Your task to perform on an android device: turn pop-ups on in chrome Image 0: 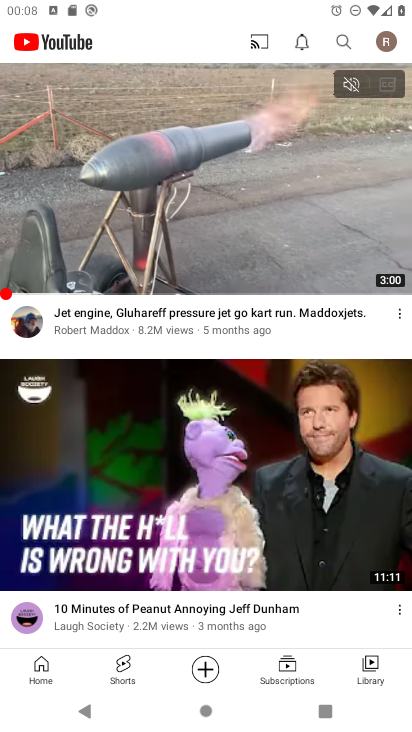
Step 0: press home button
Your task to perform on an android device: turn pop-ups on in chrome Image 1: 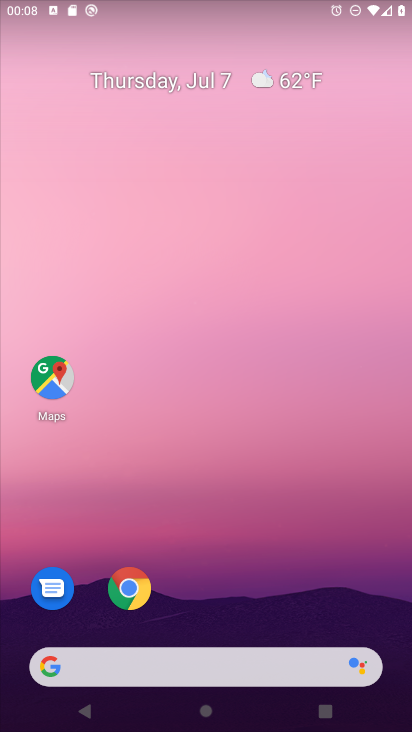
Step 1: click (131, 588)
Your task to perform on an android device: turn pop-ups on in chrome Image 2: 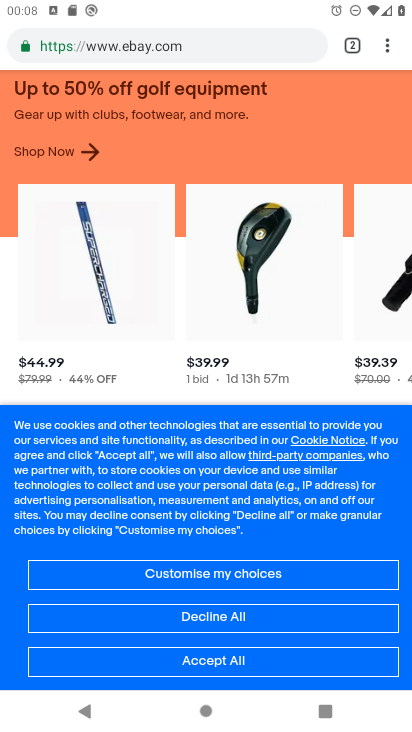
Step 2: click (385, 54)
Your task to perform on an android device: turn pop-ups on in chrome Image 3: 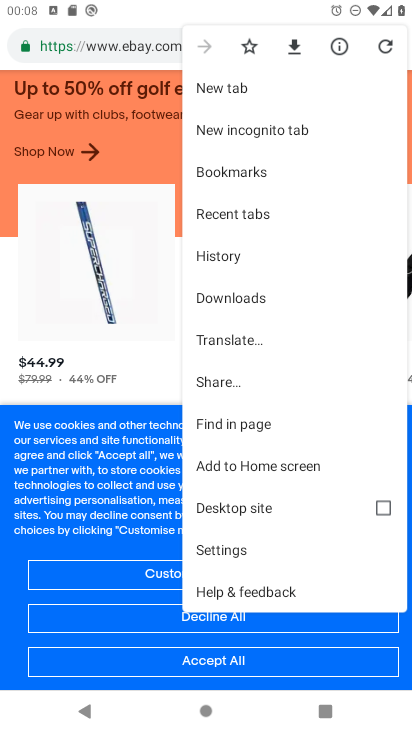
Step 3: click (224, 547)
Your task to perform on an android device: turn pop-ups on in chrome Image 4: 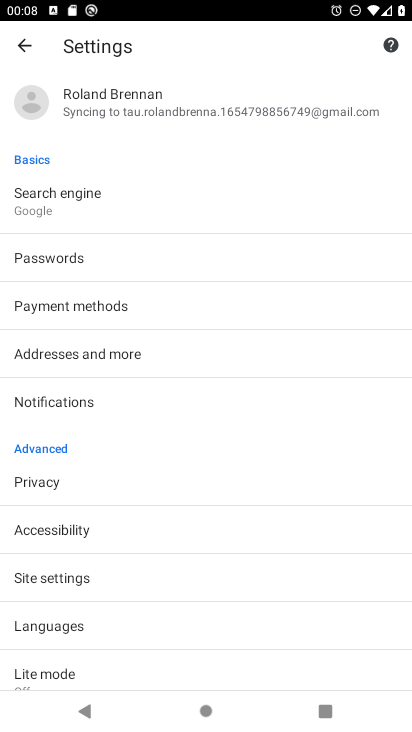
Step 4: drag from (179, 619) to (182, 316)
Your task to perform on an android device: turn pop-ups on in chrome Image 5: 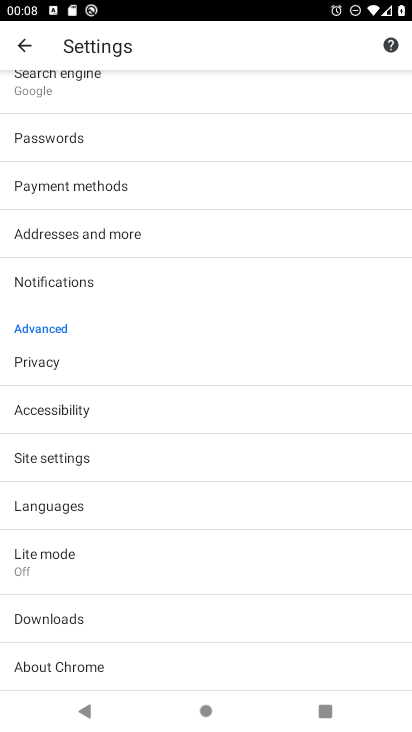
Step 5: click (52, 462)
Your task to perform on an android device: turn pop-ups on in chrome Image 6: 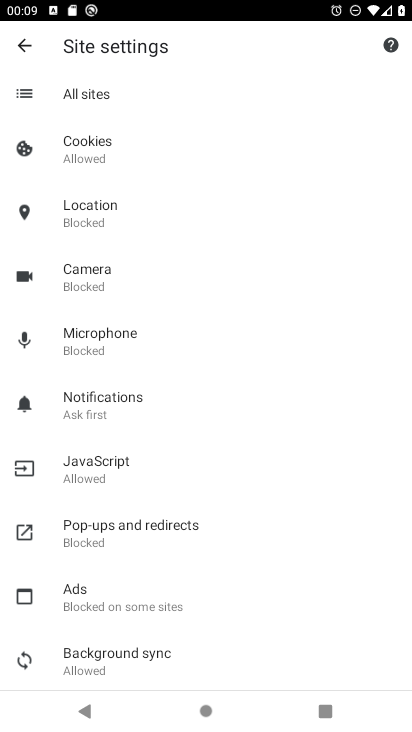
Step 6: click (93, 535)
Your task to perform on an android device: turn pop-ups on in chrome Image 7: 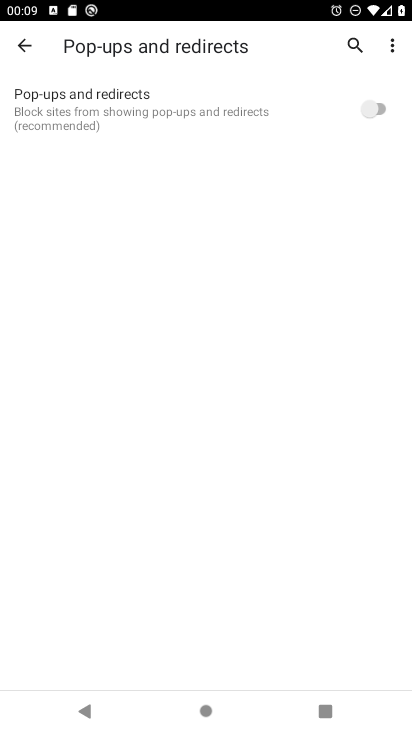
Step 7: click (382, 107)
Your task to perform on an android device: turn pop-ups on in chrome Image 8: 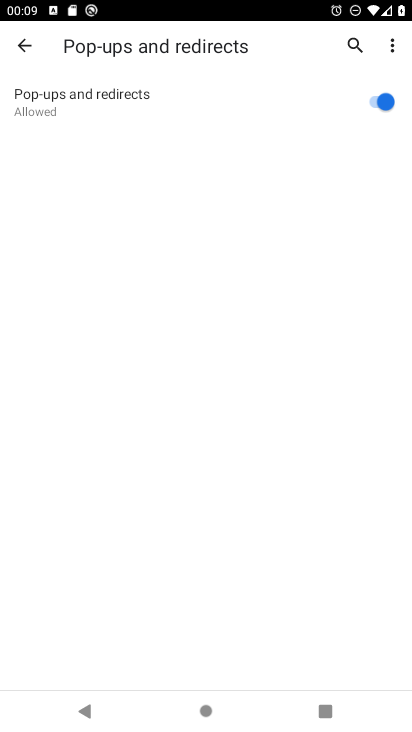
Step 8: task complete